Your task to perform on an android device: move a message to another label in the gmail app Image 0: 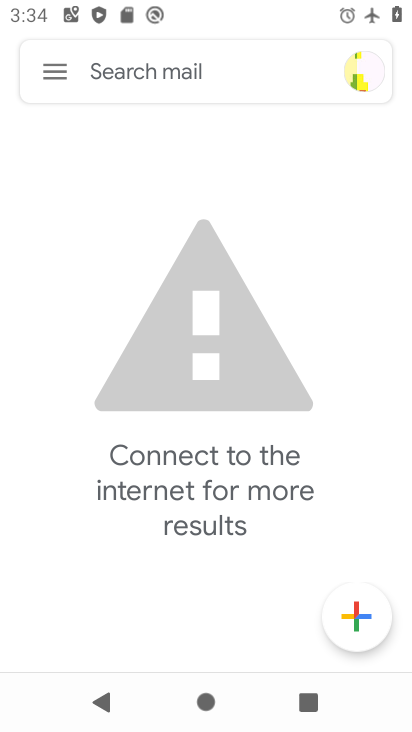
Step 0: press home button
Your task to perform on an android device: move a message to another label in the gmail app Image 1: 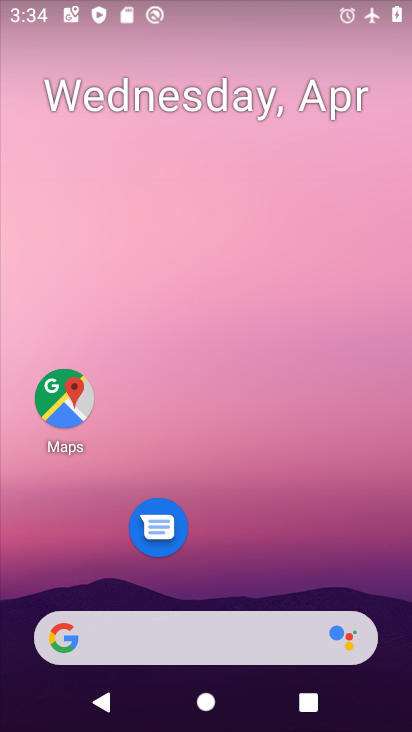
Step 1: drag from (198, 527) to (247, 29)
Your task to perform on an android device: move a message to another label in the gmail app Image 2: 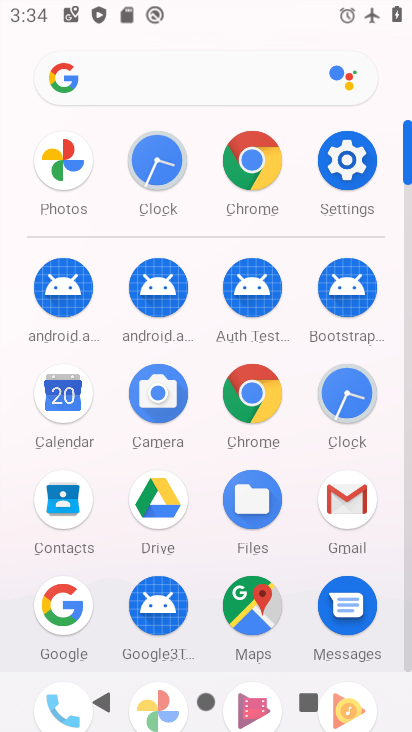
Step 2: click (338, 505)
Your task to perform on an android device: move a message to another label in the gmail app Image 3: 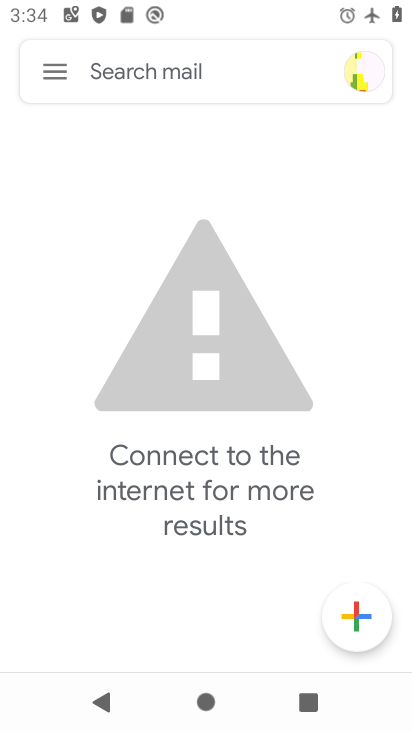
Step 3: task complete